Your task to perform on an android device: turn on the 12-hour format for clock Image 0: 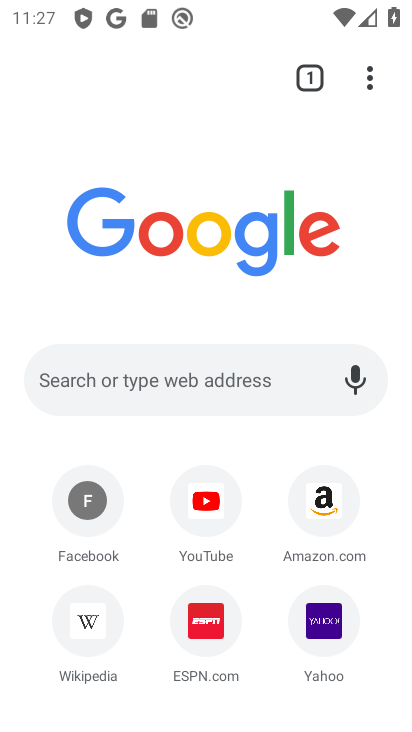
Step 0: press back button
Your task to perform on an android device: turn on the 12-hour format for clock Image 1: 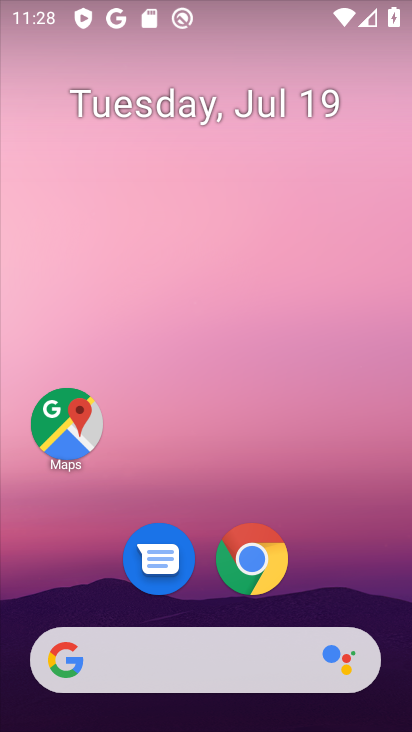
Step 1: drag from (185, 604) to (251, 17)
Your task to perform on an android device: turn on the 12-hour format for clock Image 2: 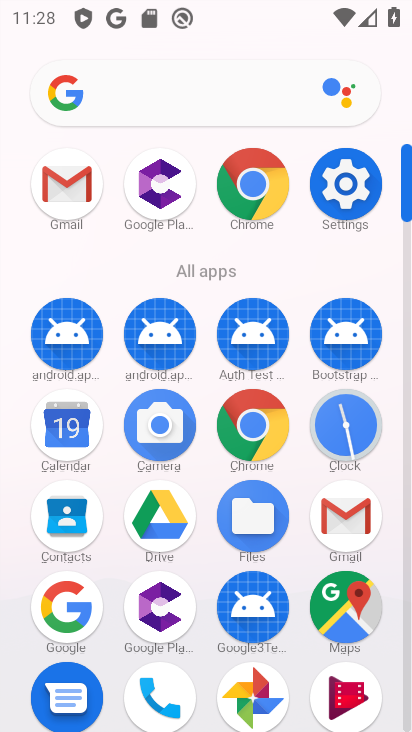
Step 2: click (356, 425)
Your task to perform on an android device: turn on the 12-hour format for clock Image 3: 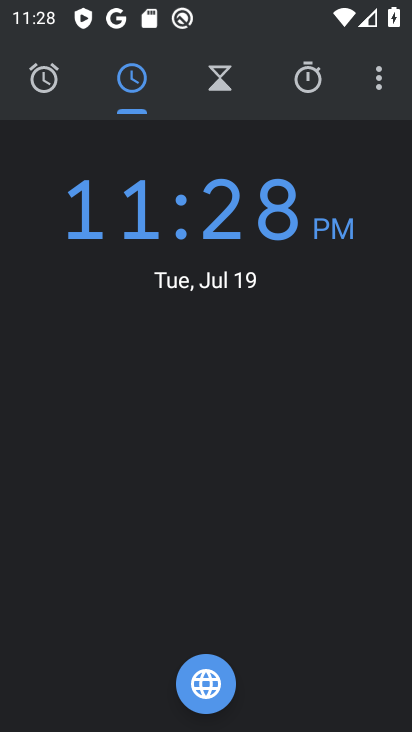
Step 3: click (377, 75)
Your task to perform on an android device: turn on the 12-hour format for clock Image 4: 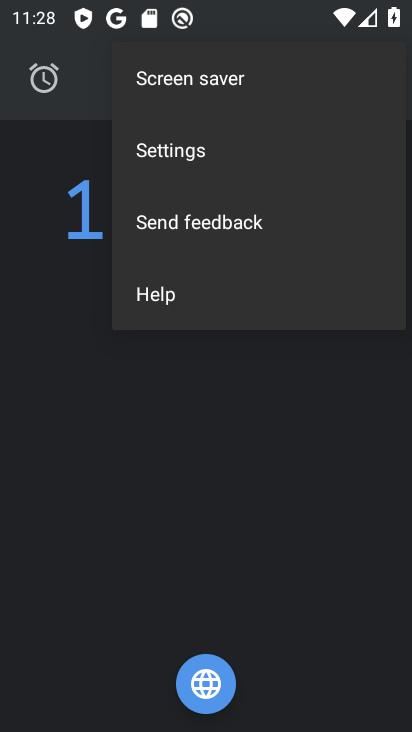
Step 4: click (191, 152)
Your task to perform on an android device: turn on the 12-hour format for clock Image 5: 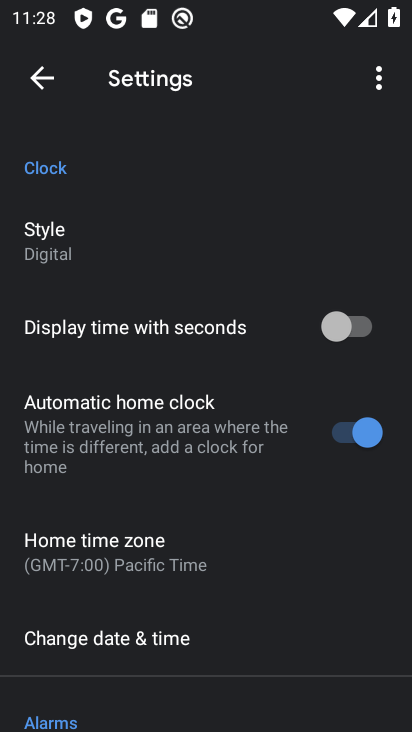
Step 5: click (147, 637)
Your task to perform on an android device: turn on the 12-hour format for clock Image 6: 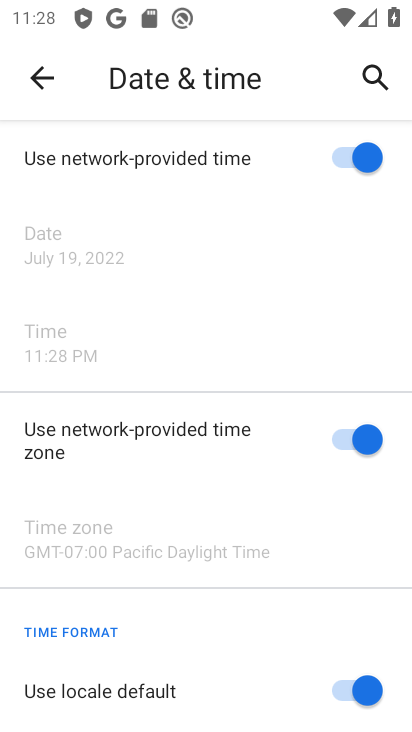
Step 6: task complete